Your task to perform on an android device: turn on notifications settings in the gmail app Image 0: 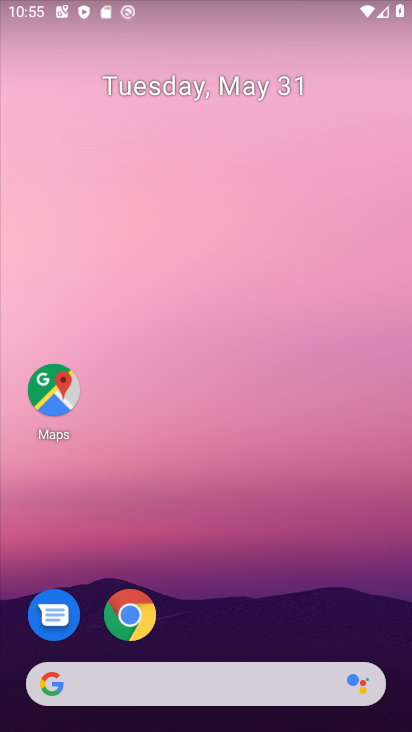
Step 0: task complete